Your task to perform on an android device: Is it going to rain tomorrow? Image 0: 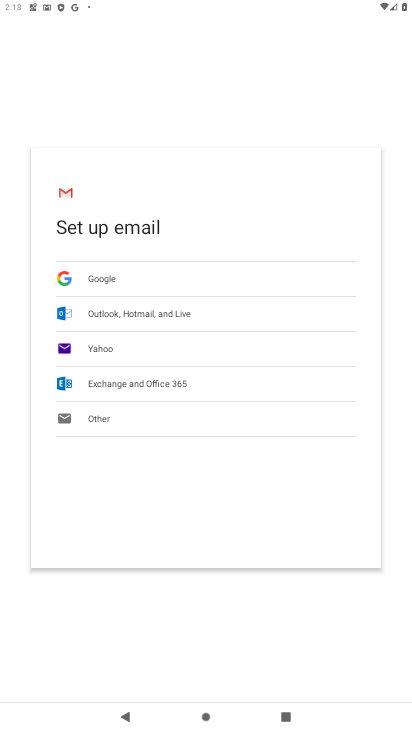
Step 0: press home button
Your task to perform on an android device: Is it going to rain tomorrow? Image 1: 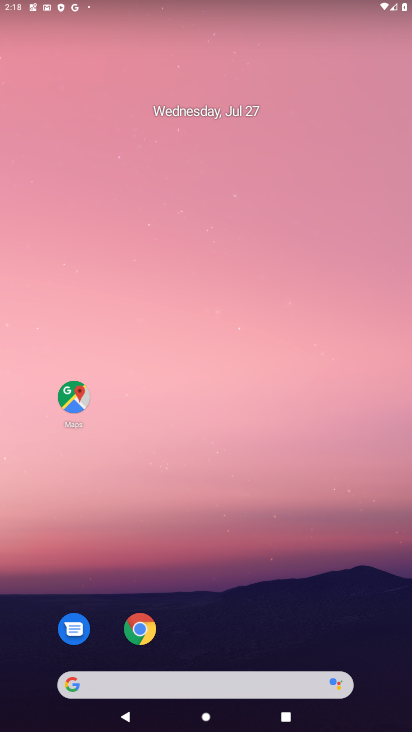
Step 1: click (201, 691)
Your task to perform on an android device: Is it going to rain tomorrow? Image 2: 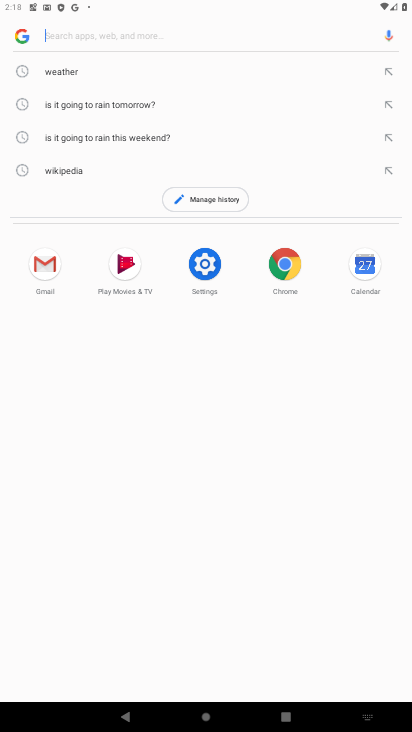
Step 2: click (124, 71)
Your task to perform on an android device: Is it going to rain tomorrow? Image 3: 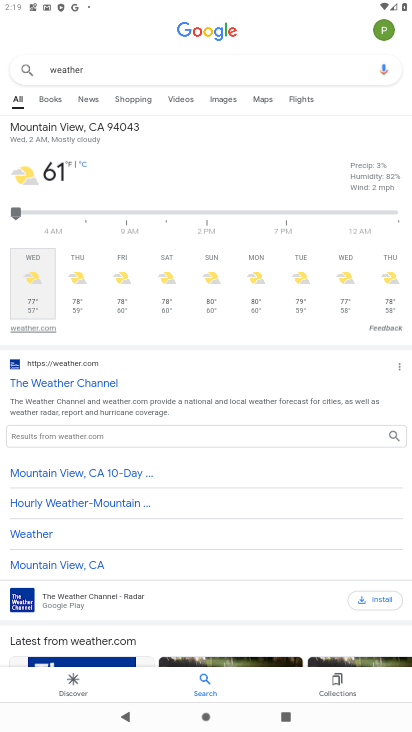
Step 3: task complete